Your task to perform on an android device: turn off location history Image 0: 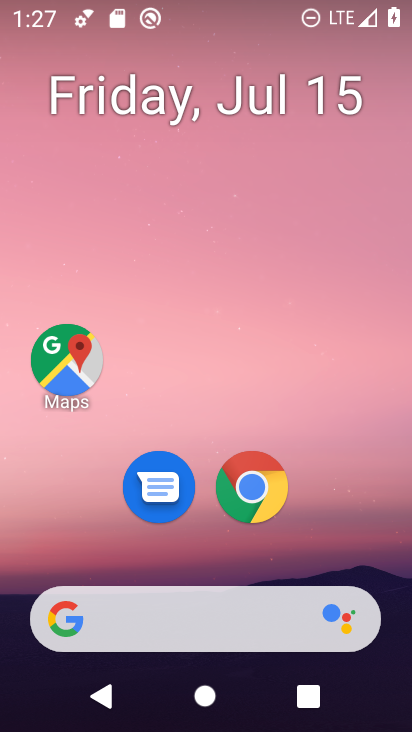
Step 0: drag from (226, 565) to (288, 136)
Your task to perform on an android device: turn off location history Image 1: 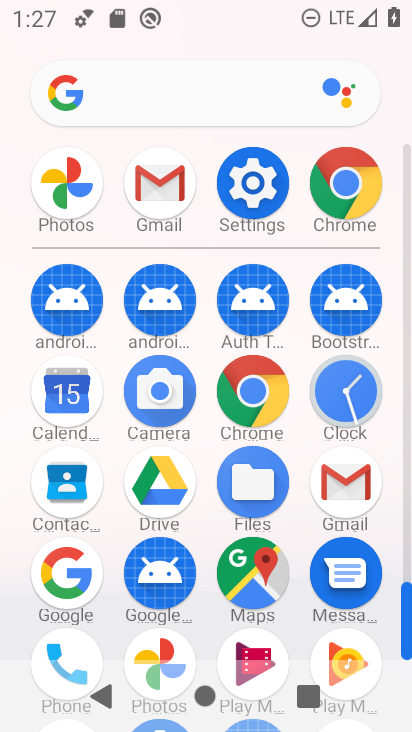
Step 1: click (257, 197)
Your task to perform on an android device: turn off location history Image 2: 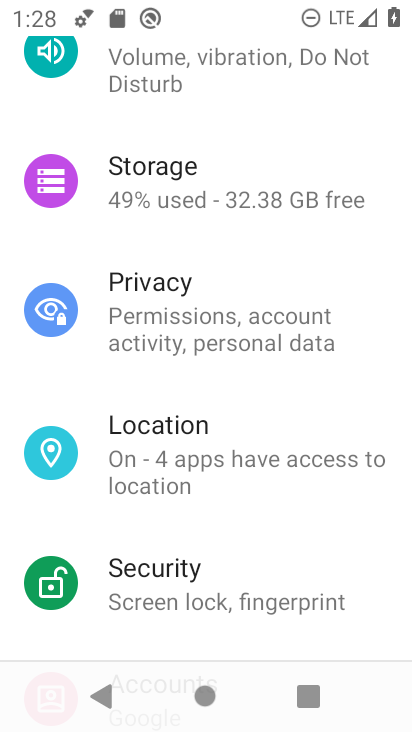
Step 2: click (232, 456)
Your task to perform on an android device: turn off location history Image 3: 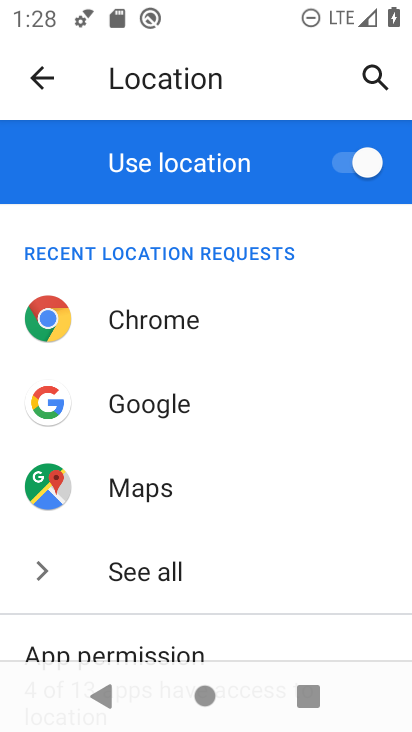
Step 3: drag from (222, 627) to (264, 180)
Your task to perform on an android device: turn off location history Image 4: 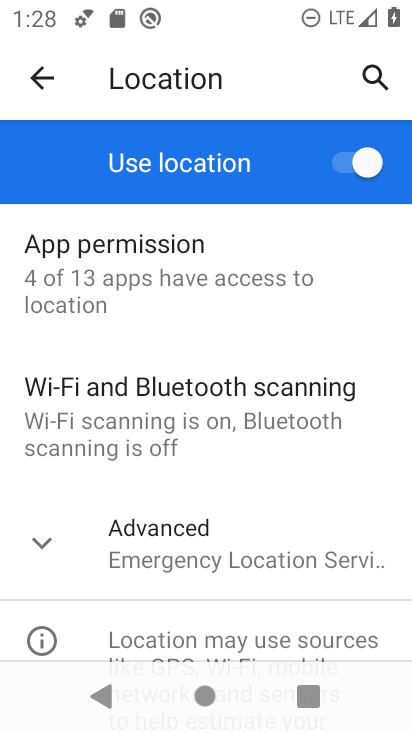
Step 4: click (179, 559)
Your task to perform on an android device: turn off location history Image 5: 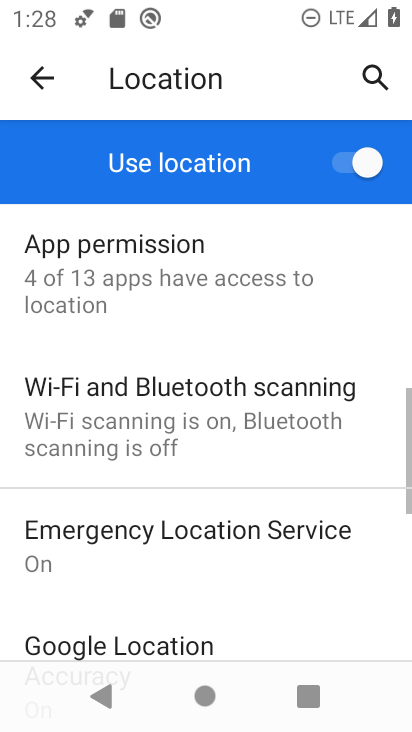
Step 5: drag from (185, 474) to (235, 128)
Your task to perform on an android device: turn off location history Image 6: 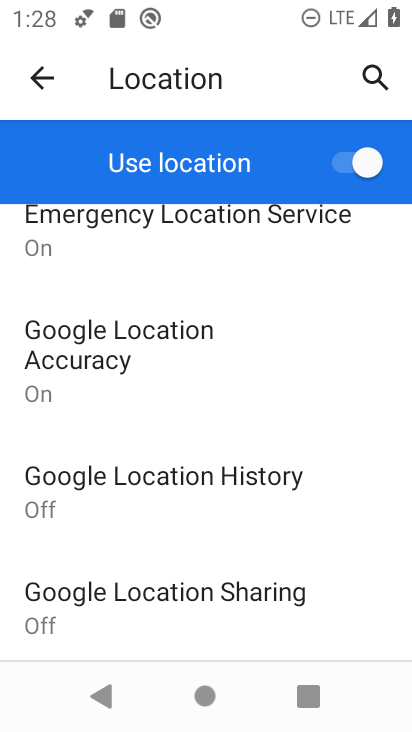
Step 6: click (147, 489)
Your task to perform on an android device: turn off location history Image 7: 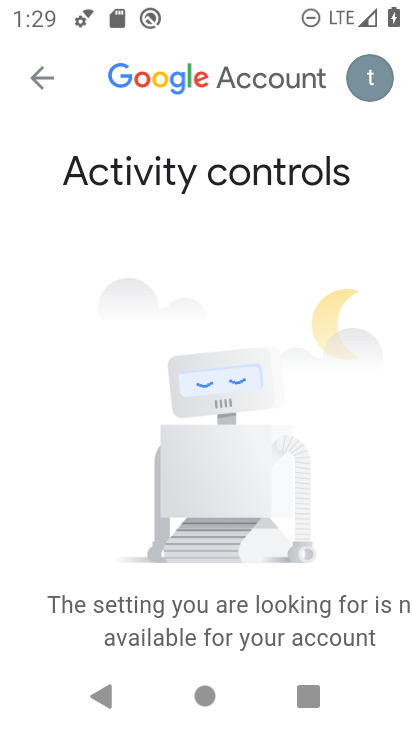
Step 7: task complete